Your task to perform on an android device: turn off airplane mode Image 0: 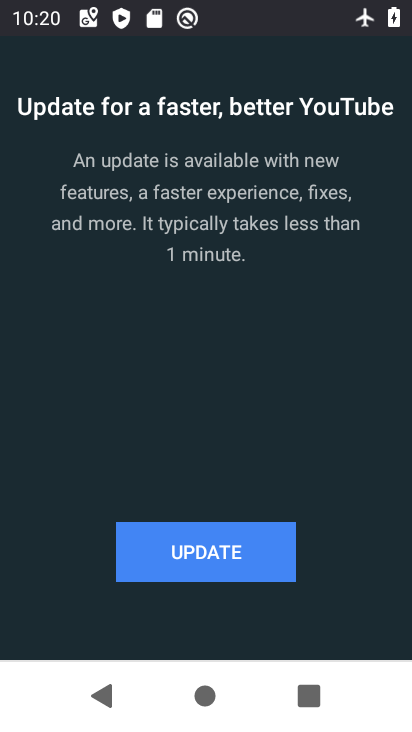
Step 0: press back button
Your task to perform on an android device: turn off airplane mode Image 1: 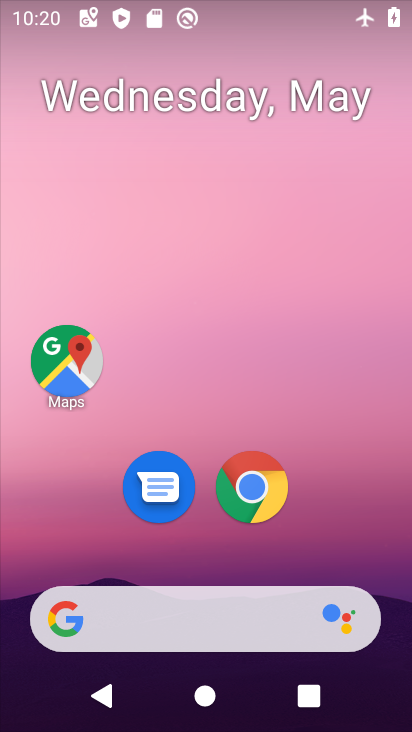
Step 1: drag from (205, 571) to (390, 16)
Your task to perform on an android device: turn off airplane mode Image 2: 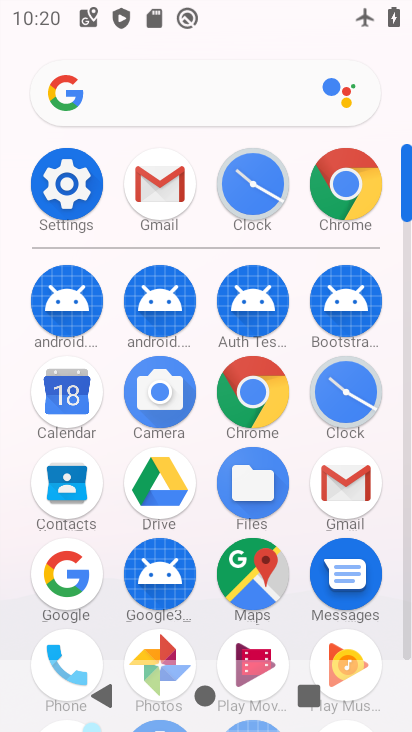
Step 2: click (74, 183)
Your task to perform on an android device: turn off airplane mode Image 3: 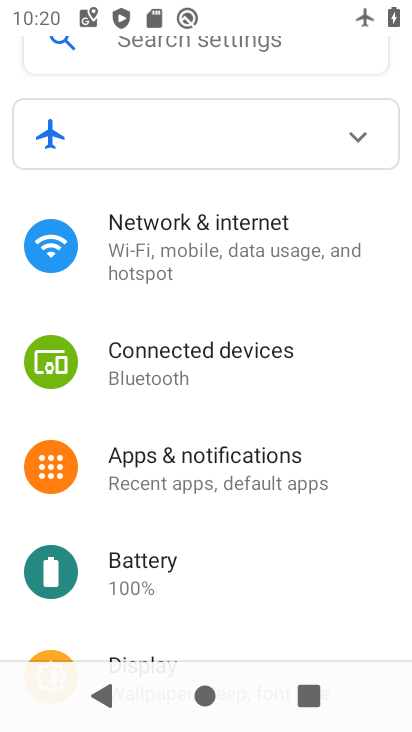
Step 3: click (201, 271)
Your task to perform on an android device: turn off airplane mode Image 4: 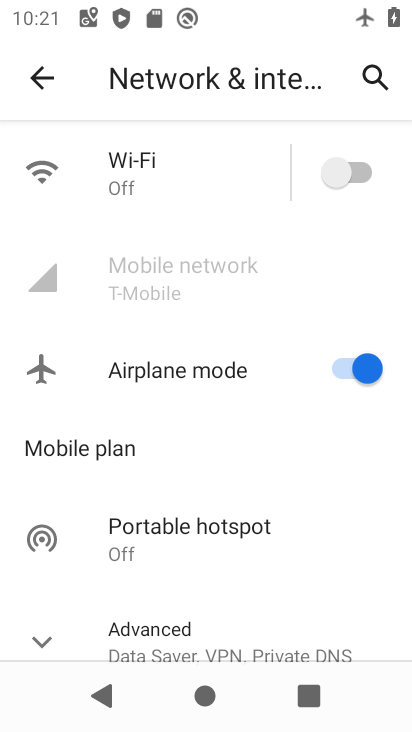
Step 4: click (342, 365)
Your task to perform on an android device: turn off airplane mode Image 5: 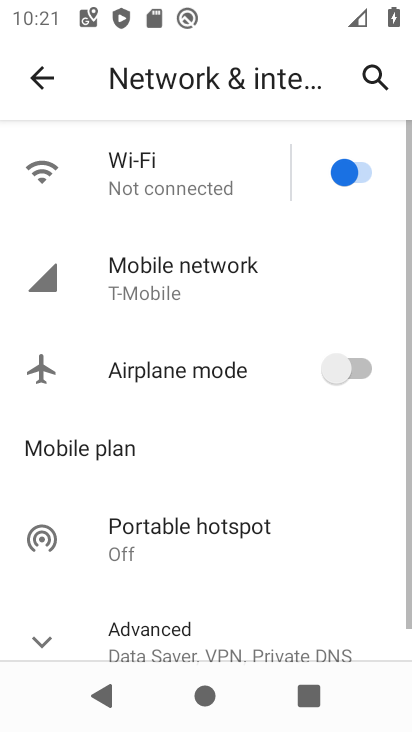
Step 5: task complete